Your task to perform on an android device: allow cookies in the chrome app Image 0: 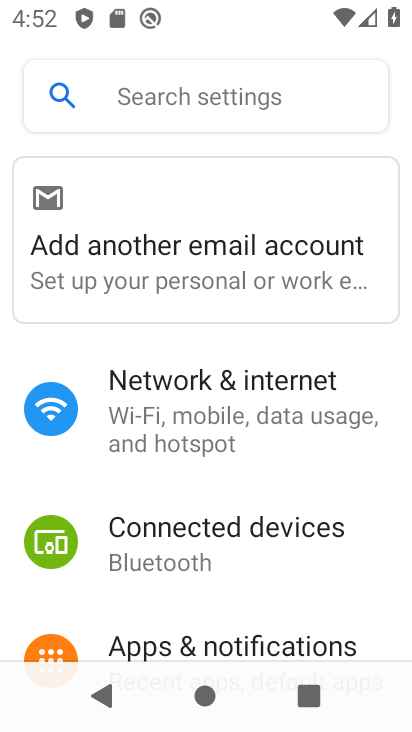
Step 0: press home button
Your task to perform on an android device: allow cookies in the chrome app Image 1: 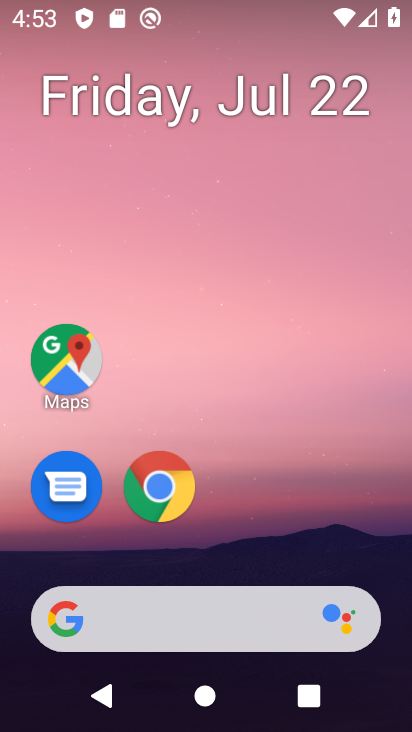
Step 1: drag from (330, 549) to (275, 33)
Your task to perform on an android device: allow cookies in the chrome app Image 2: 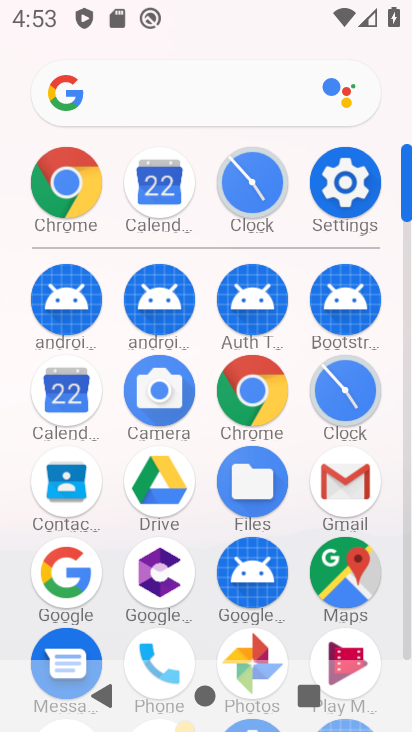
Step 2: click (90, 194)
Your task to perform on an android device: allow cookies in the chrome app Image 3: 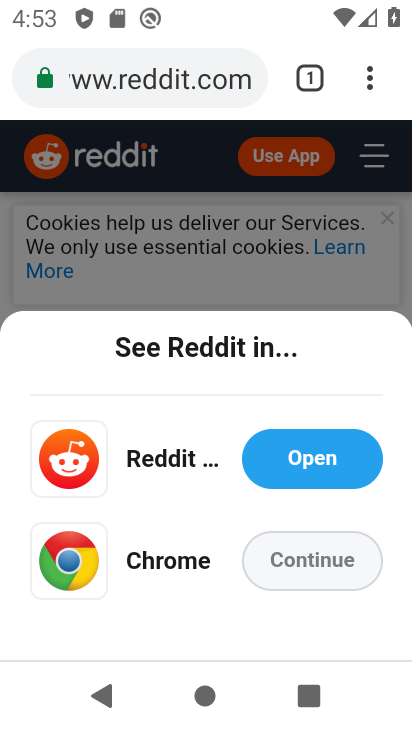
Step 3: click (375, 89)
Your task to perform on an android device: allow cookies in the chrome app Image 4: 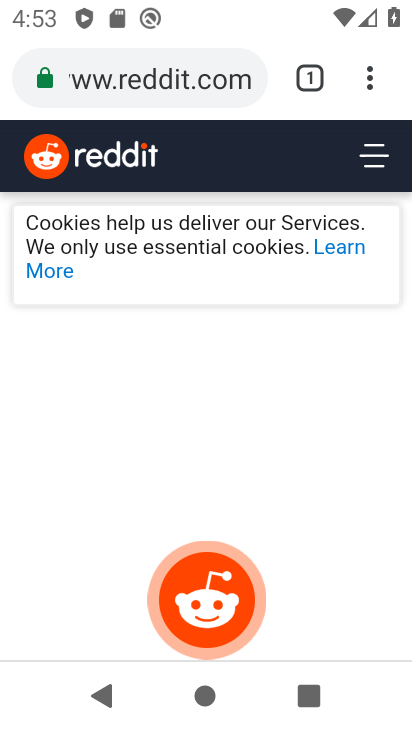
Step 4: click (357, 89)
Your task to perform on an android device: allow cookies in the chrome app Image 5: 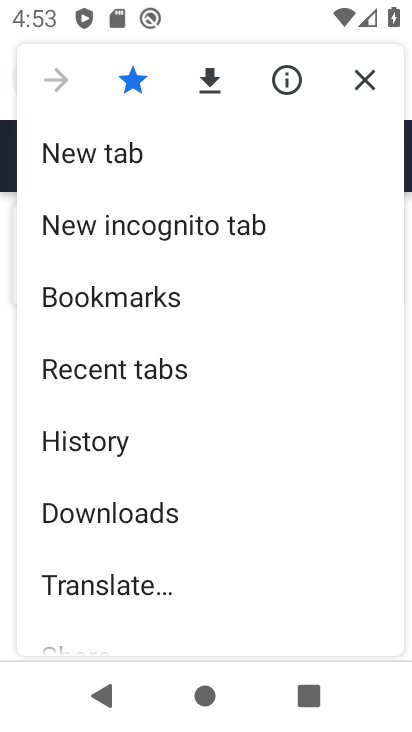
Step 5: drag from (226, 566) to (196, 201)
Your task to perform on an android device: allow cookies in the chrome app Image 6: 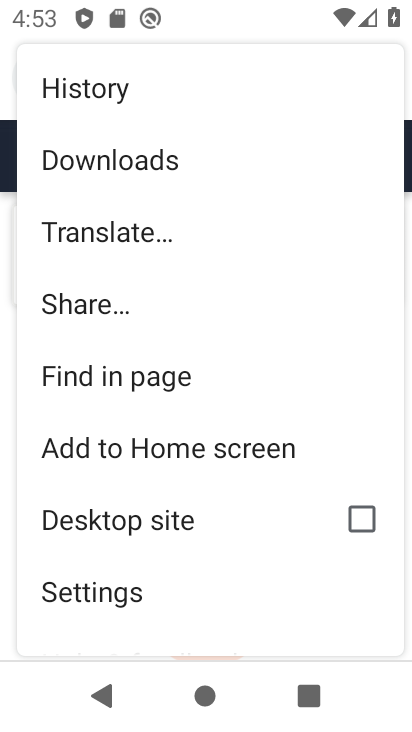
Step 6: drag from (122, 606) to (110, 292)
Your task to perform on an android device: allow cookies in the chrome app Image 7: 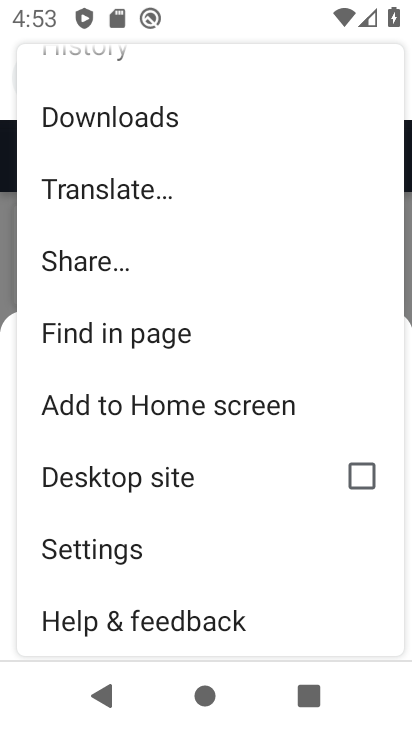
Step 7: click (88, 549)
Your task to perform on an android device: allow cookies in the chrome app Image 8: 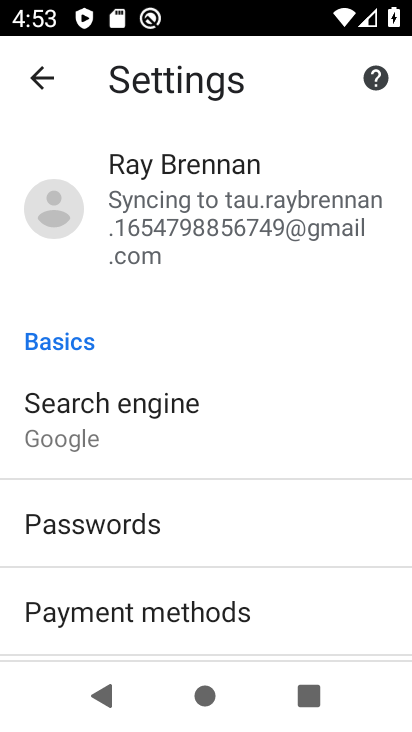
Step 8: drag from (197, 606) to (181, 105)
Your task to perform on an android device: allow cookies in the chrome app Image 9: 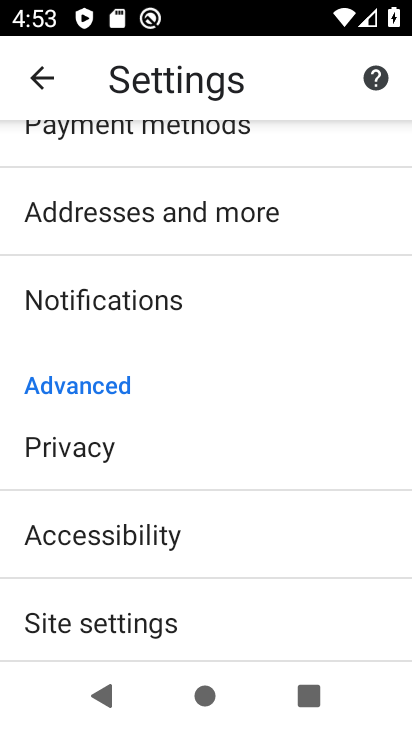
Step 9: drag from (194, 550) to (193, 277)
Your task to perform on an android device: allow cookies in the chrome app Image 10: 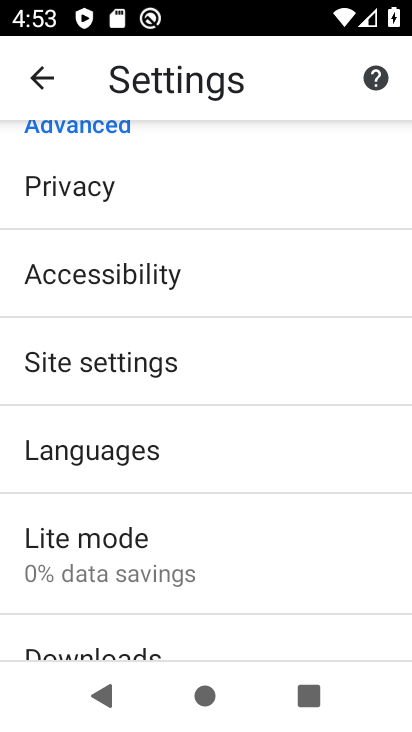
Step 10: click (165, 377)
Your task to perform on an android device: allow cookies in the chrome app Image 11: 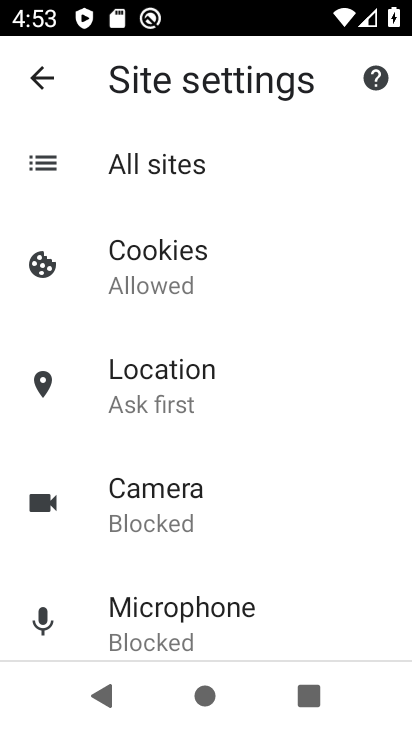
Step 11: click (202, 254)
Your task to perform on an android device: allow cookies in the chrome app Image 12: 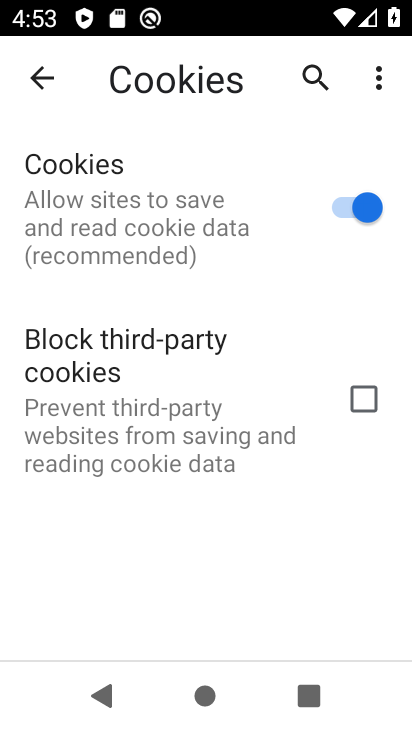
Step 12: task complete